Your task to perform on an android device: toggle notifications settings in the gmail app Image 0: 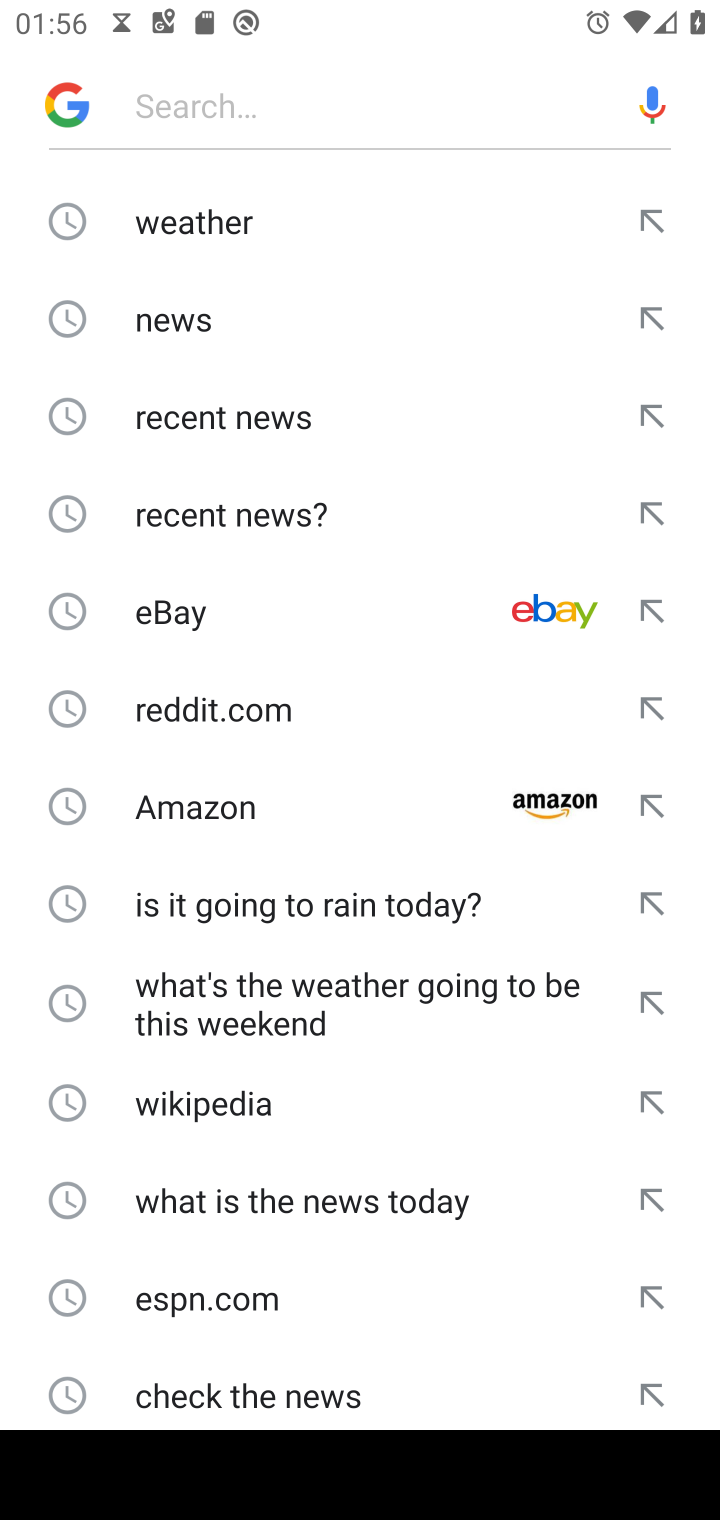
Step 0: press home button
Your task to perform on an android device: toggle notifications settings in the gmail app Image 1: 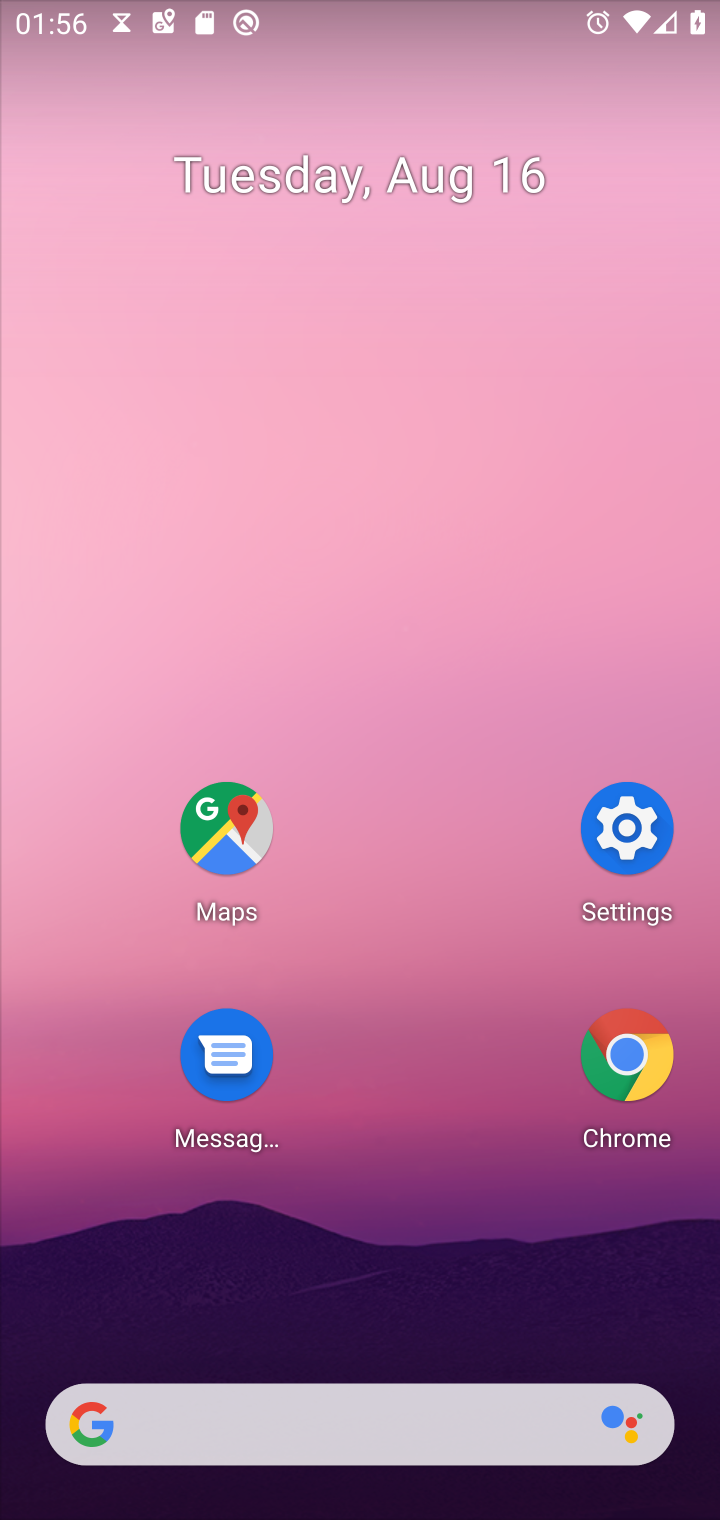
Step 1: drag from (351, 1413) to (541, 481)
Your task to perform on an android device: toggle notifications settings in the gmail app Image 2: 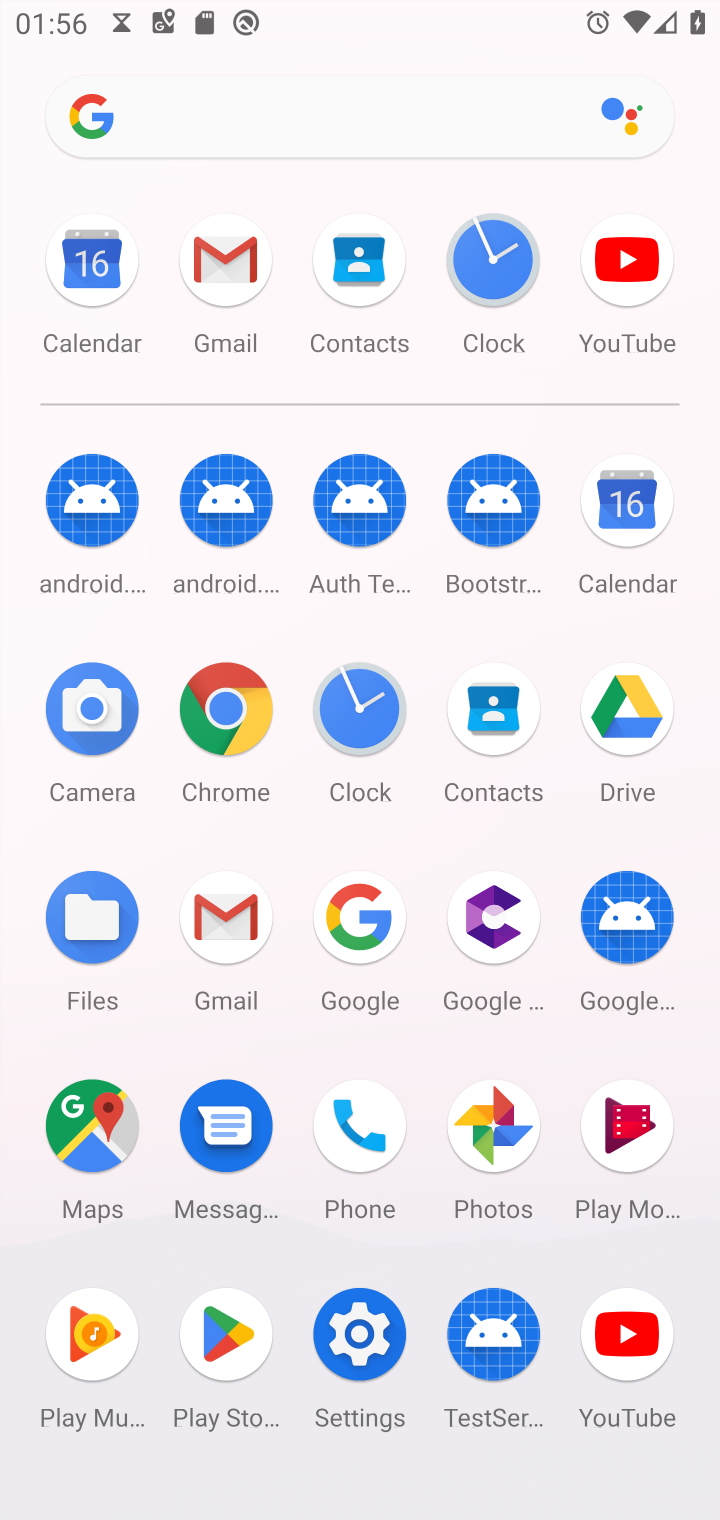
Step 2: click (231, 914)
Your task to perform on an android device: toggle notifications settings in the gmail app Image 3: 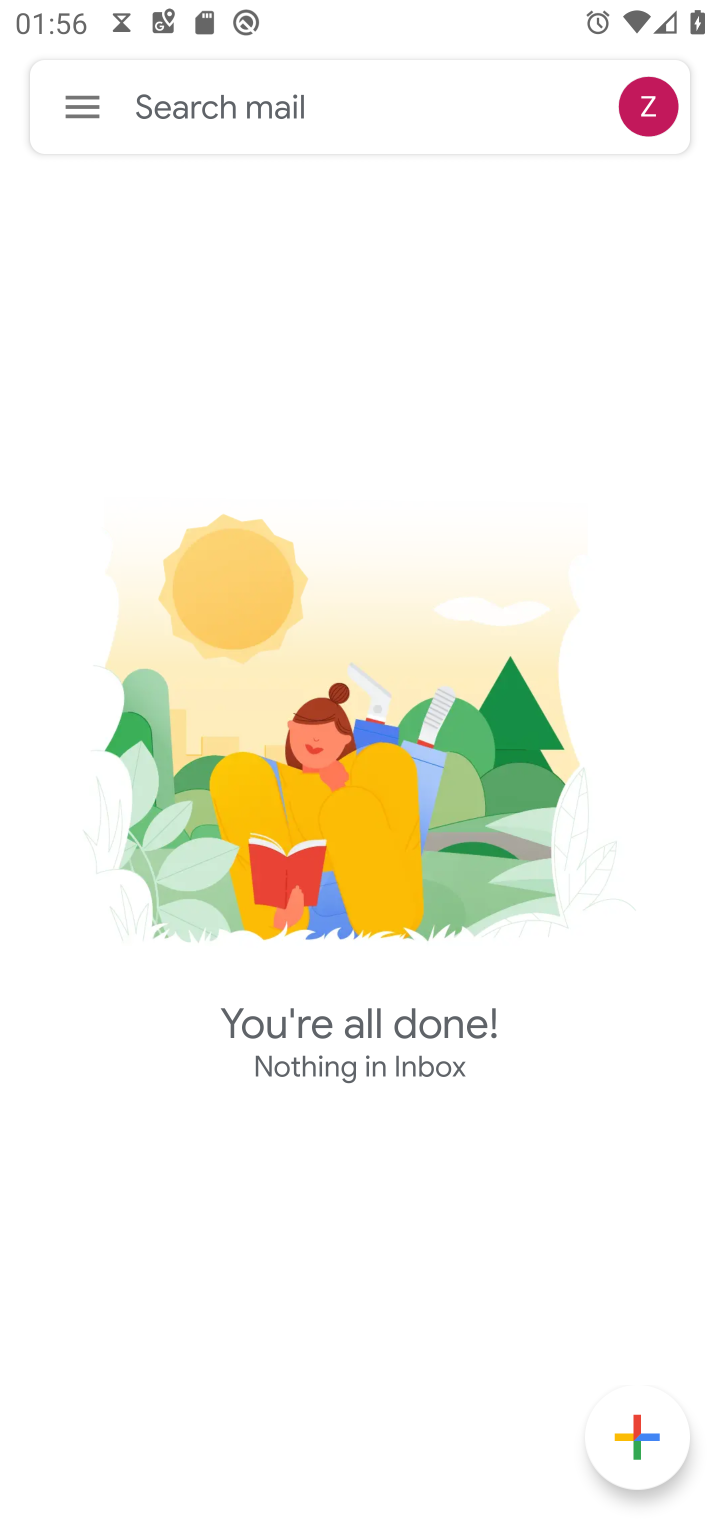
Step 3: click (77, 97)
Your task to perform on an android device: toggle notifications settings in the gmail app Image 4: 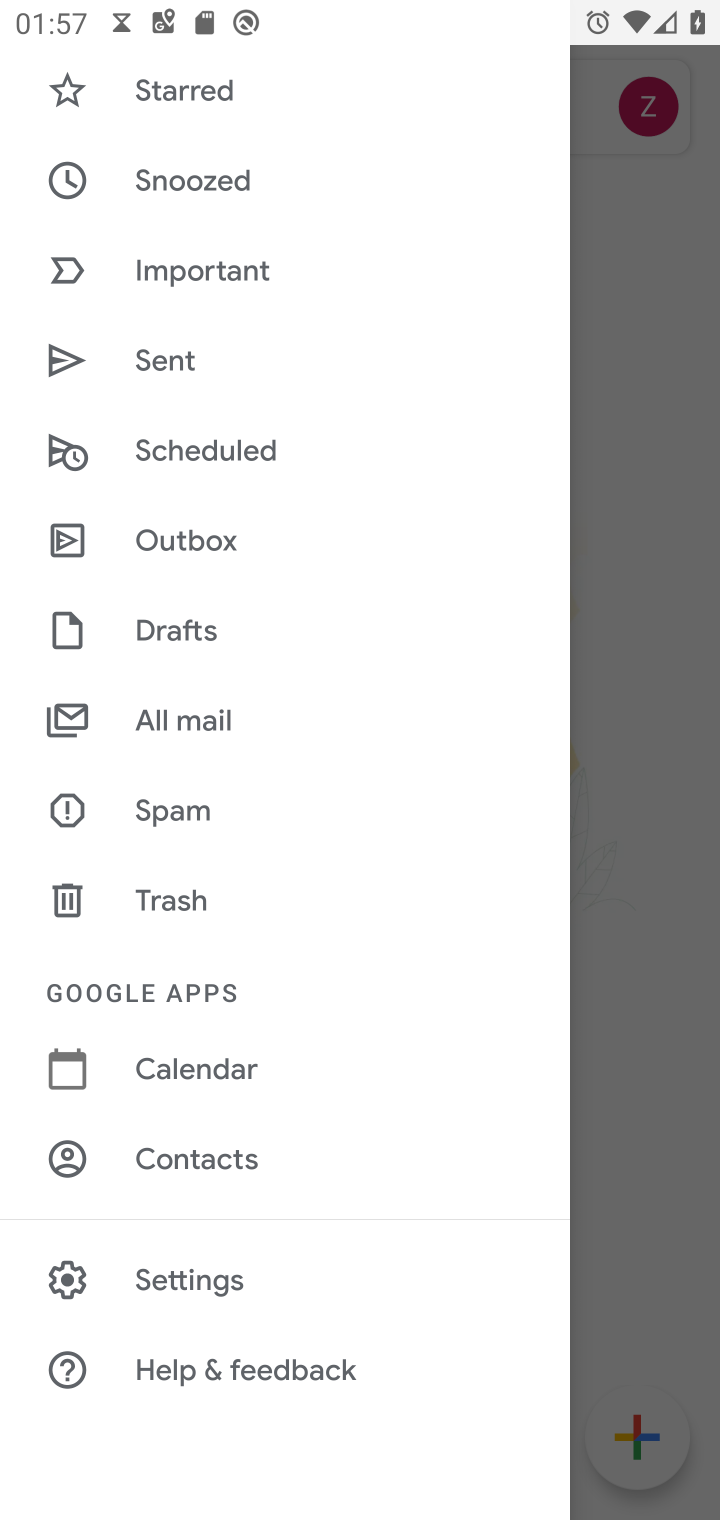
Step 4: click (163, 1254)
Your task to perform on an android device: toggle notifications settings in the gmail app Image 5: 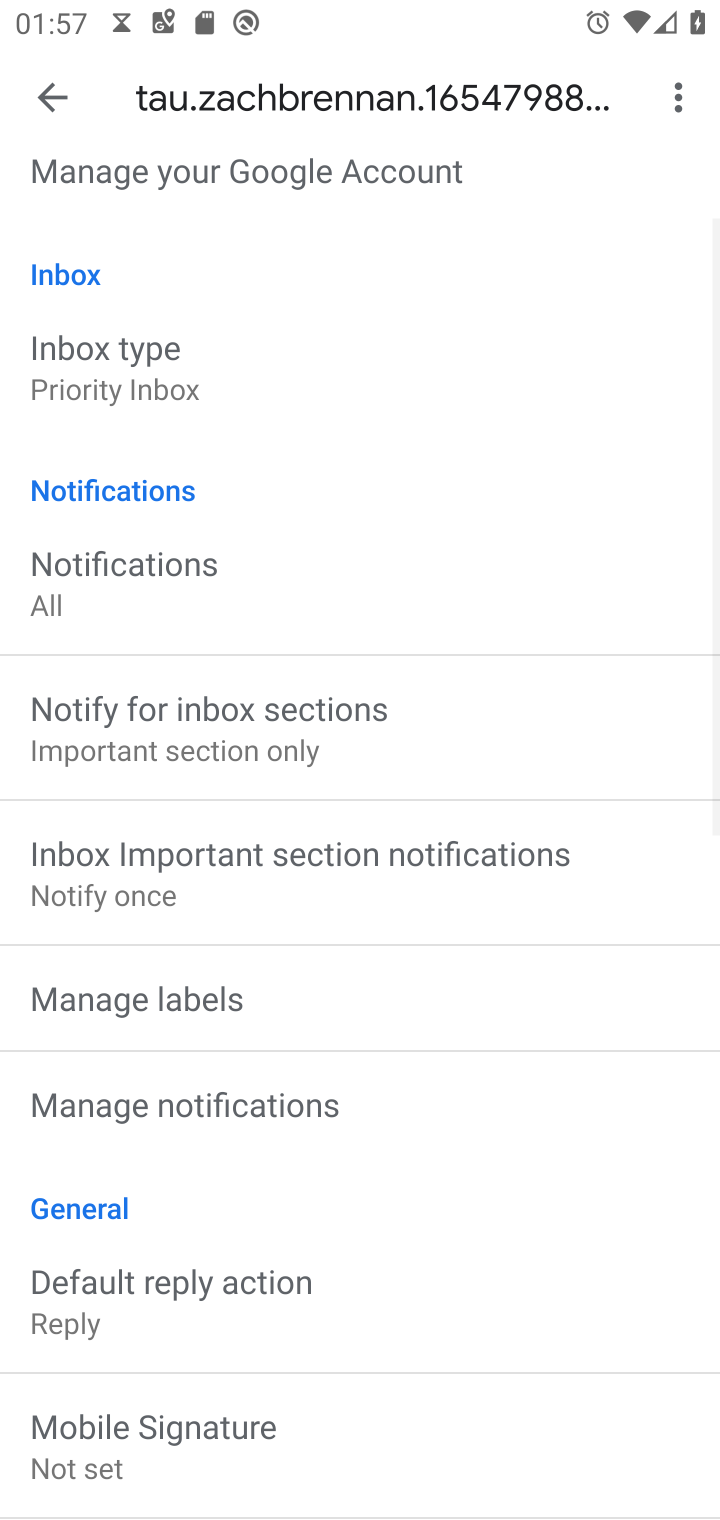
Step 5: click (138, 556)
Your task to perform on an android device: toggle notifications settings in the gmail app Image 6: 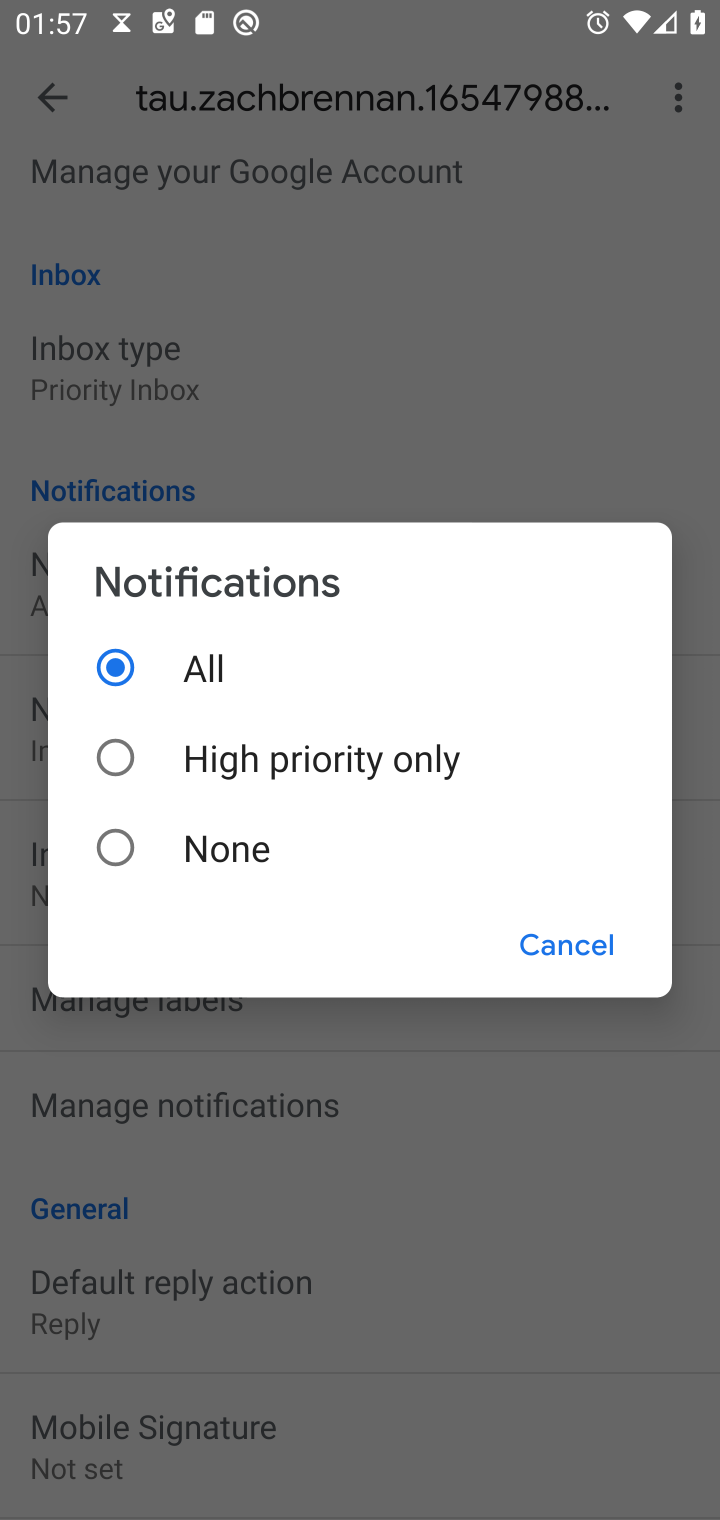
Step 6: click (103, 851)
Your task to perform on an android device: toggle notifications settings in the gmail app Image 7: 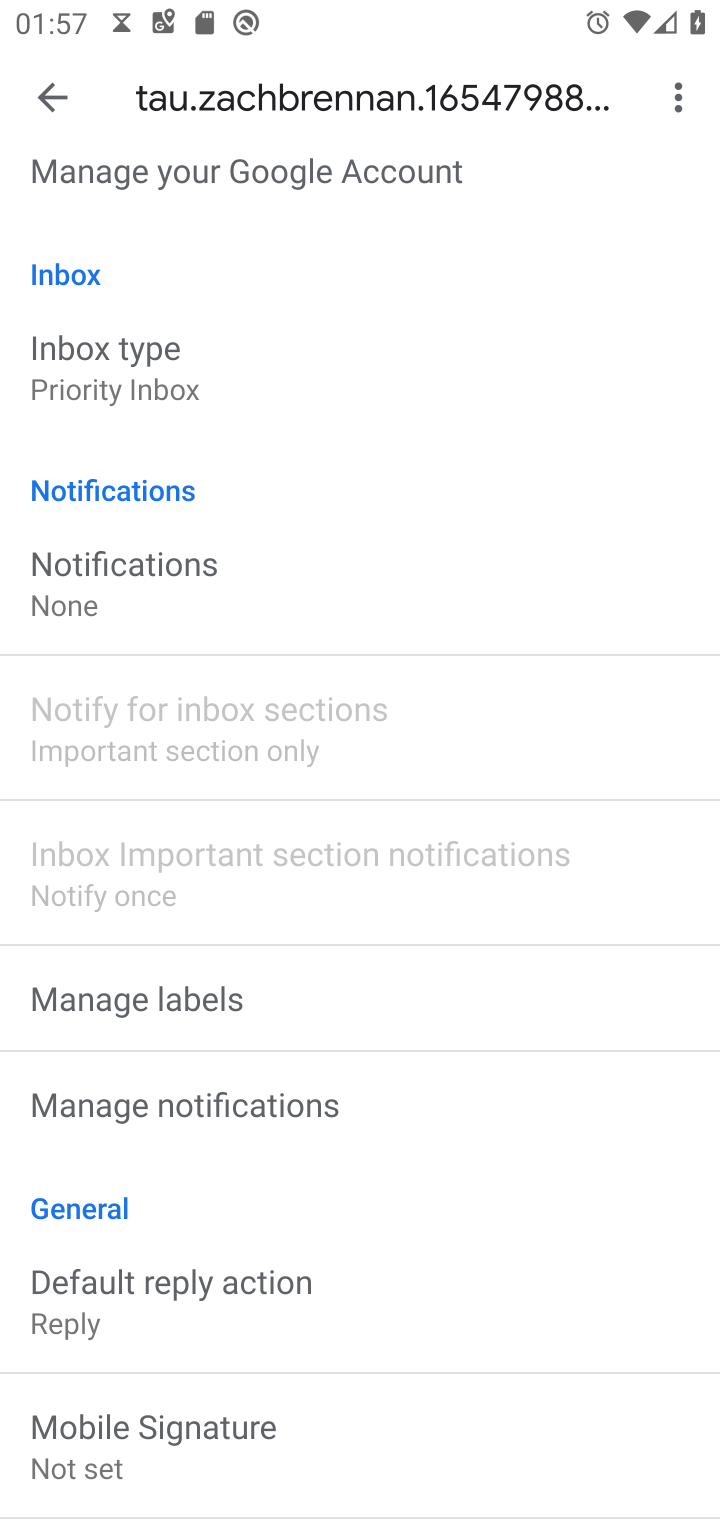
Step 7: task complete